Your task to perform on an android device: Go to network settings Image 0: 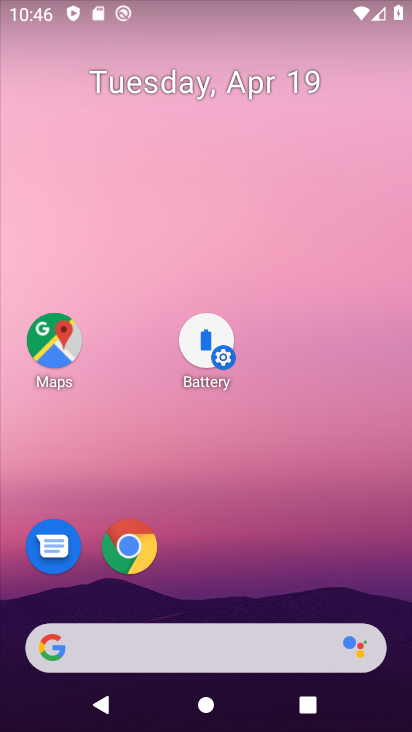
Step 0: drag from (245, 266) to (256, 129)
Your task to perform on an android device: Go to network settings Image 1: 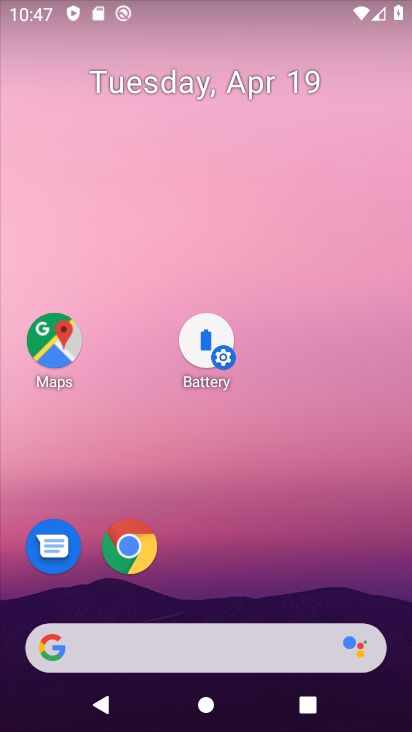
Step 1: drag from (303, 483) to (318, 127)
Your task to perform on an android device: Go to network settings Image 2: 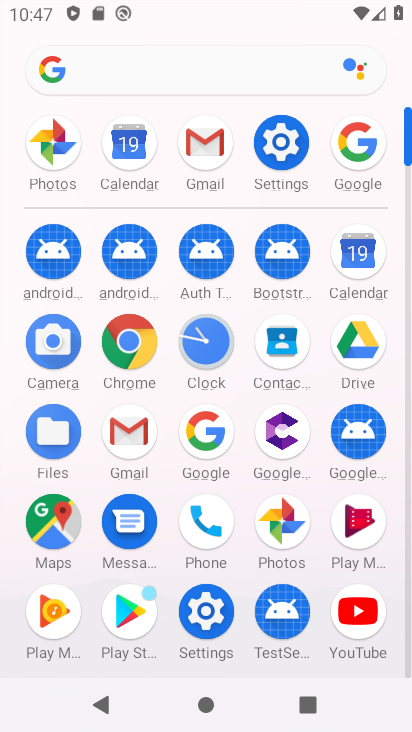
Step 2: click (277, 153)
Your task to perform on an android device: Go to network settings Image 3: 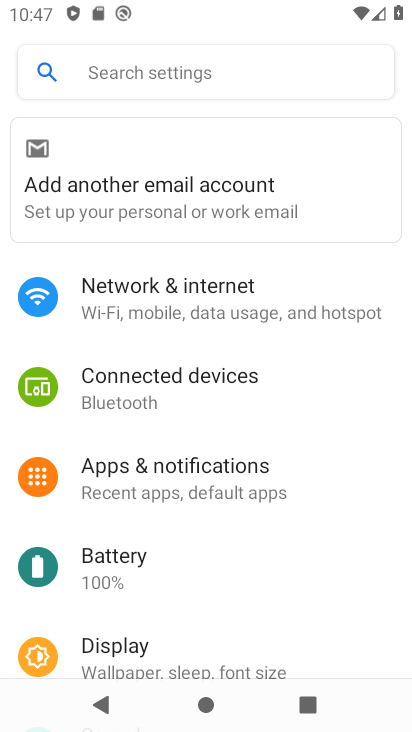
Step 3: click (163, 311)
Your task to perform on an android device: Go to network settings Image 4: 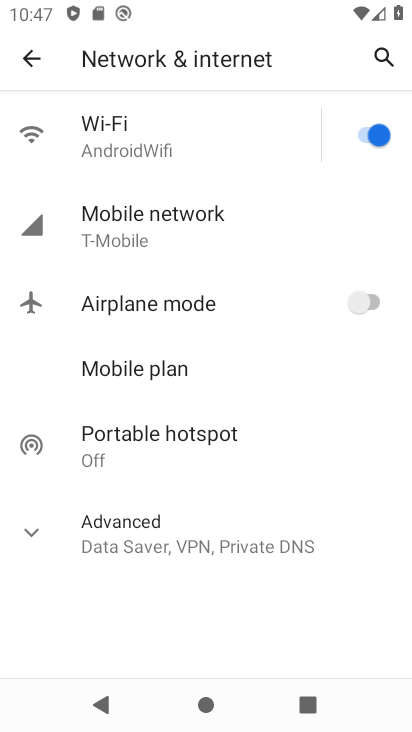
Step 4: task complete